Your task to perform on an android device: toggle wifi Image 0: 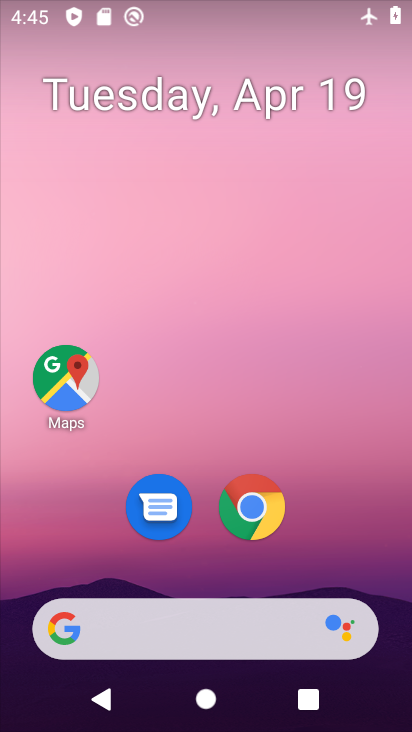
Step 0: drag from (351, 457) to (296, 94)
Your task to perform on an android device: toggle wifi Image 1: 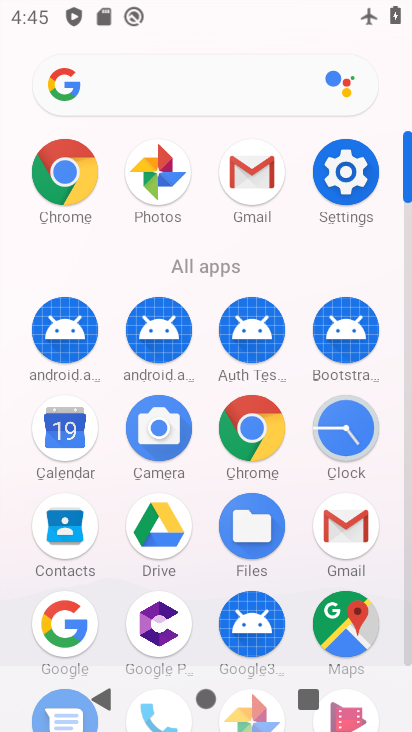
Step 1: click (348, 173)
Your task to perform on an android device: toggle wifi Image 2: 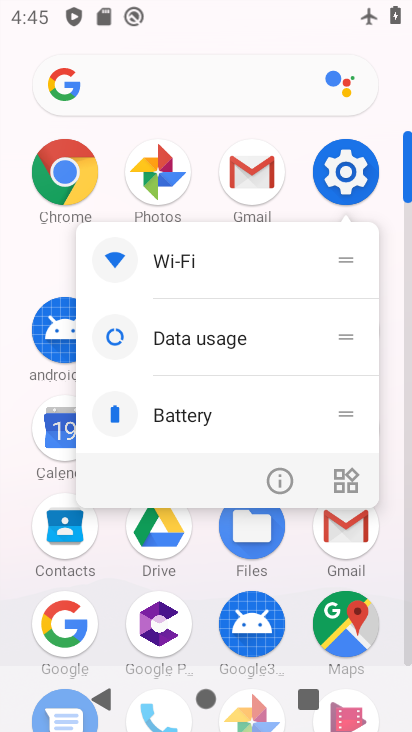
Step 2: click (344, 177)
Your task to perform on an android device: toggle wifi Image 3: 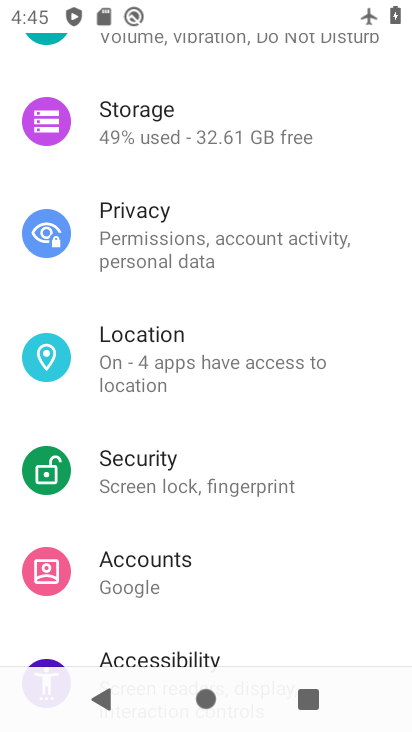
Step 3: drag from (306, 124) to (274, 482)
Your task to perform on an android device: toggle wifi Image 4: 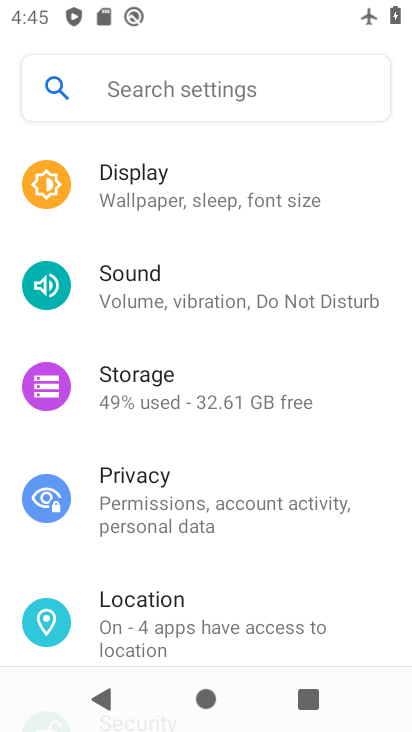
Step 4: drag from (280, 187) to (259, 451)
Your task to perform on an android device: toggle wifi Image 5: 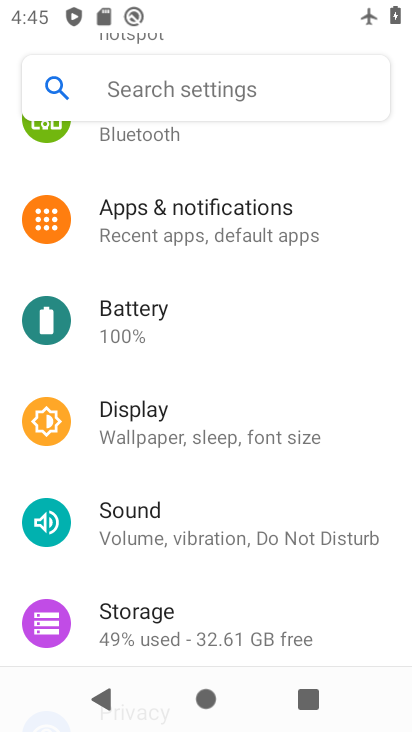
Step 5: drag from (249, 217) to (240, 446)
Your task to perform on an android device: toggle wifi Image 6: 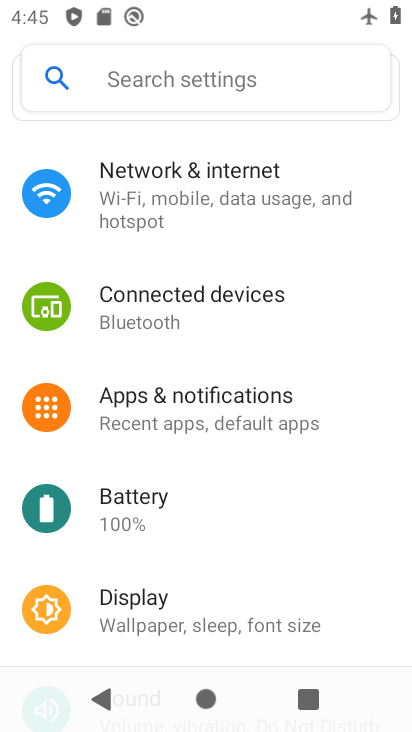
Step 6: click (264, 205)
Your task to perform on an android device: toggle wifi Image 7: 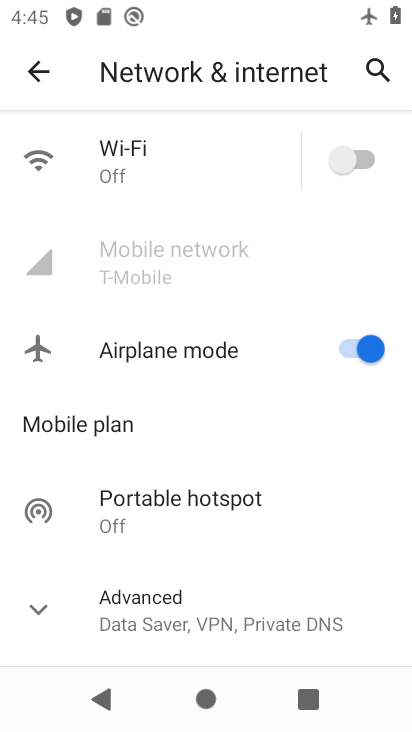
Step 7: click (253, 135)
Your task to perform on an android device: toggle wifi Image 8: 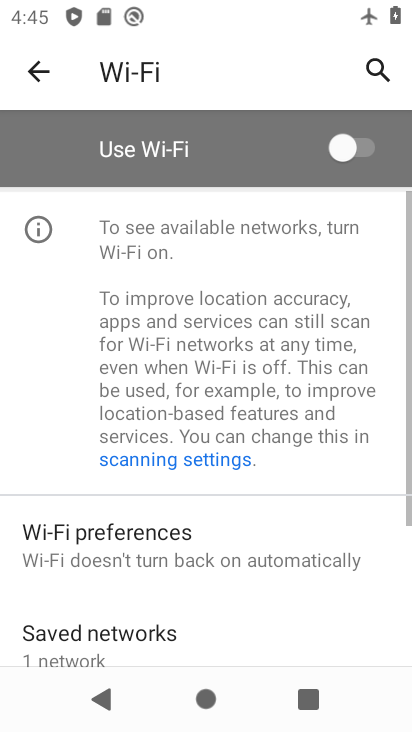
Step 8: click (341, 143)
Your task to perform on an android device: toggle wifi Image 9: 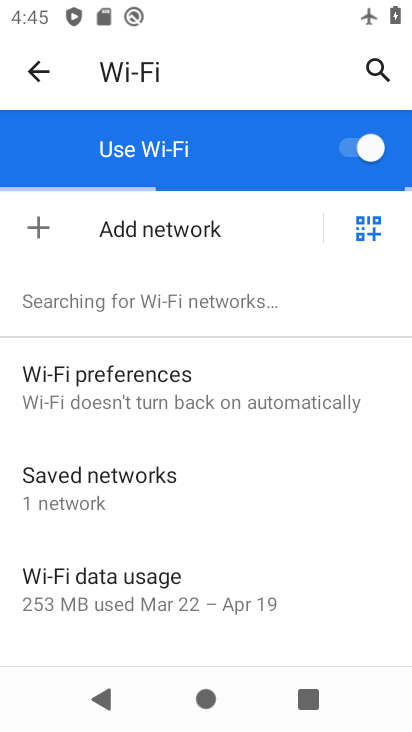
Step 9: task complete